Your task to perform on an android device: remove spam from my inbox in the gmail app Image 0: 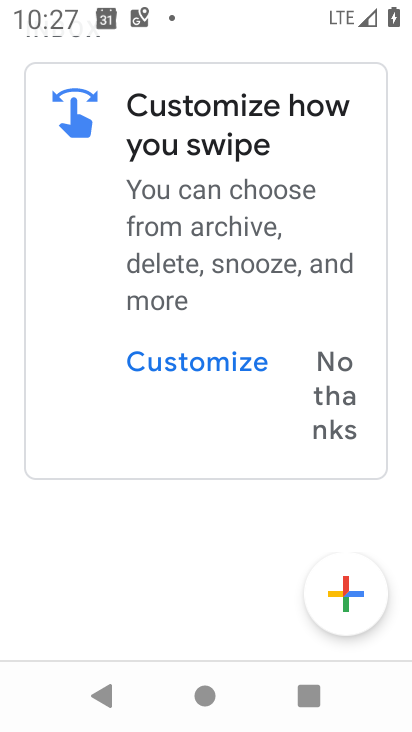
Step 0: press back button
Your task to perform on an android device: remove spam from my inbox in the gmail app Image 1: 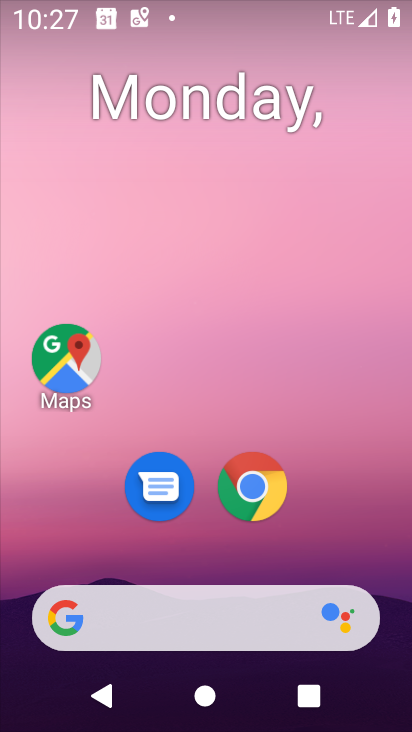
Step 1: drag from (327, 523) to (247, 46)
Your task to perform on an android device: remove spam from my inbox in the gmail app Image 2: 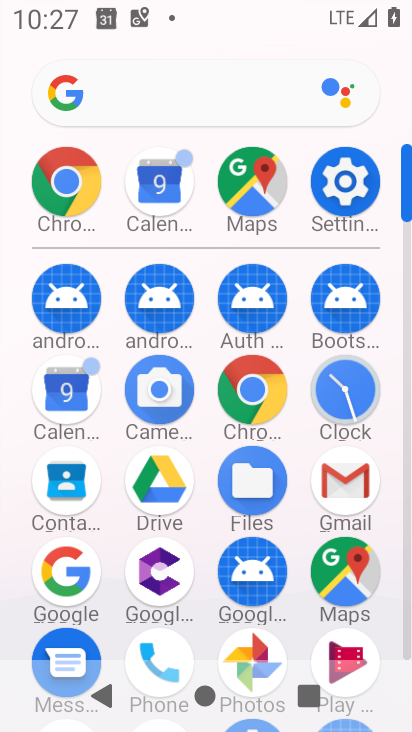
Step 2: click (346, 474)
Your task to perform on an android device: remove spam from my inbox in the gmail app Image 3: 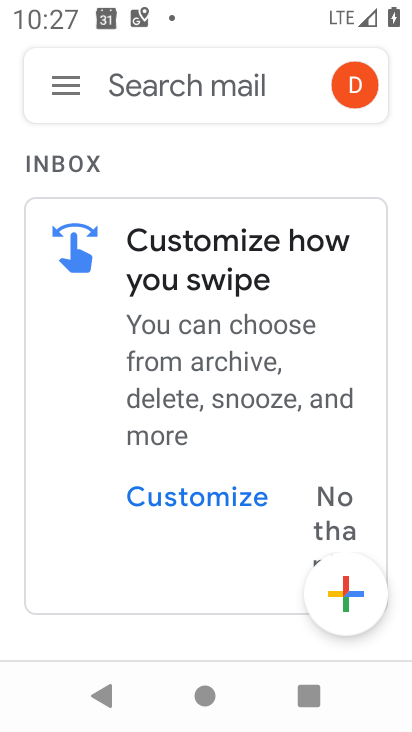
Step 3: click (52, 79)
Your task to perform on an android device: remove spam from my inbox in the gmail app Image 4: 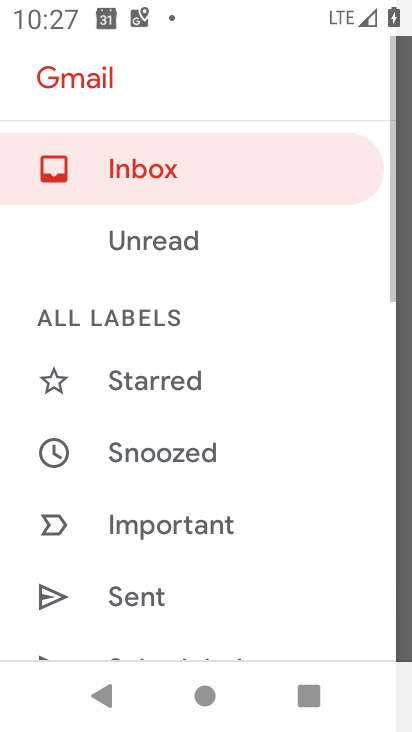
Step 4: drag from (240, 491) to (230, 139)
Your task to perform on an android device: remove spam from my inbox in the gmail app Image 5: 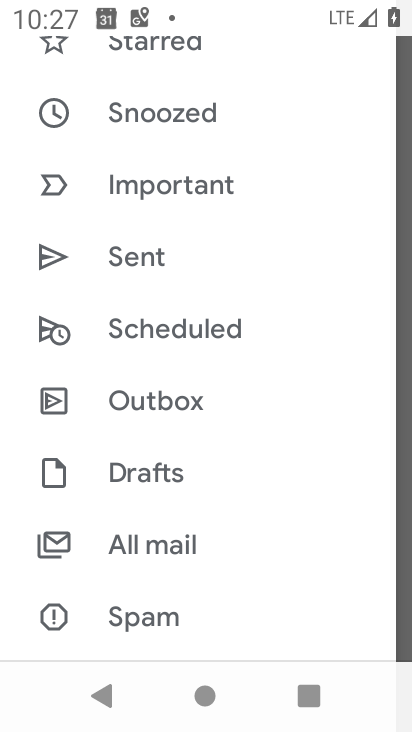
Step 5: click (178, 605)
Your task to perform on an android device: remove spam from my inbox in the gmail app Image 6: 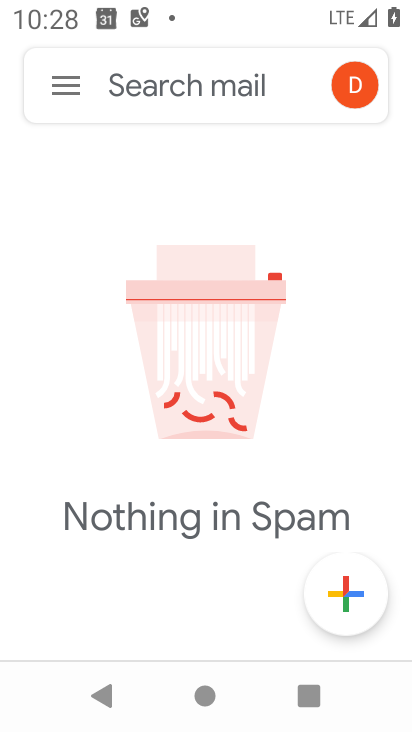
Step 6: drag from (208, 551) to (208, 186)
Your task to perform on an android device: remove spam from my inbox in the gmail app Image 7: 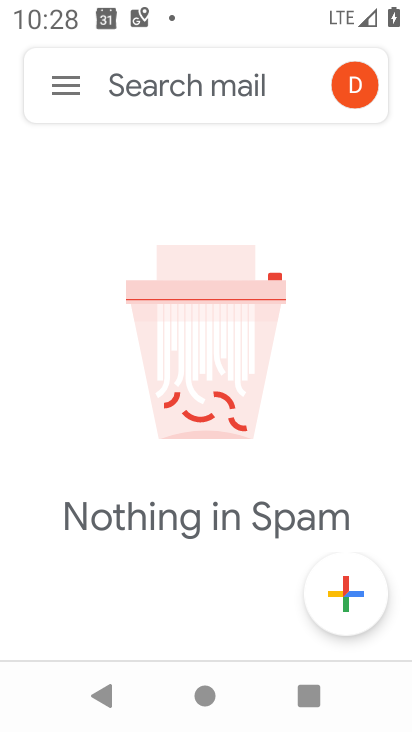
Step 7: click (68, 71)
Your task to perform on an android device: remove spam from my inbox in the gmail app Image 8: 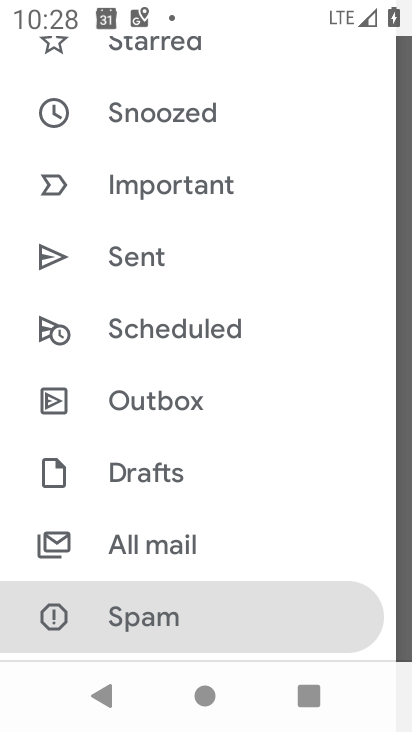
Step 8: click (283, 633)
Your task to perform on an android device: remove spam from my inbox in the gmail app Image 9: 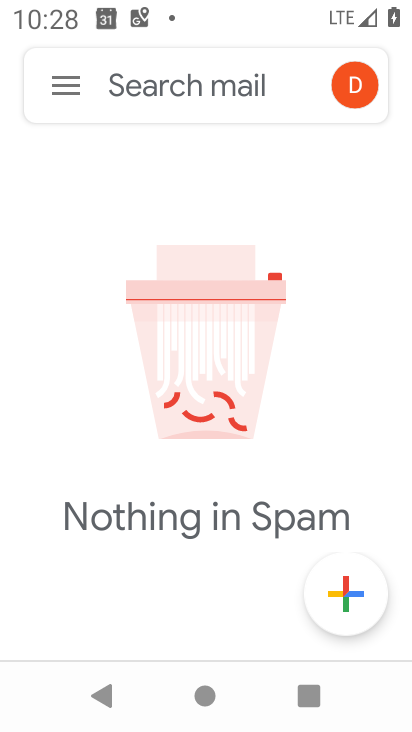
Step 9: task complete